Your task to perform on an android device: turn off location history Image 0: 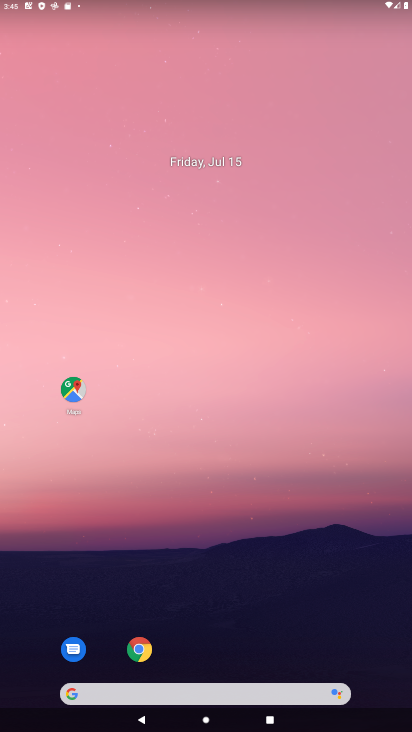
Step 0: drag from (305, 603) to (280, 6)
Your task to perform on an android device: turn off location history Image 1: 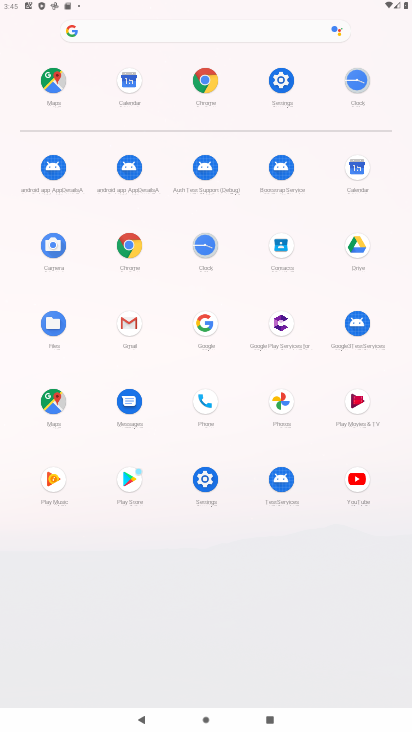
Step 1: click (284, 86)
Your task to perform on an android device: turn off location history Image 2: 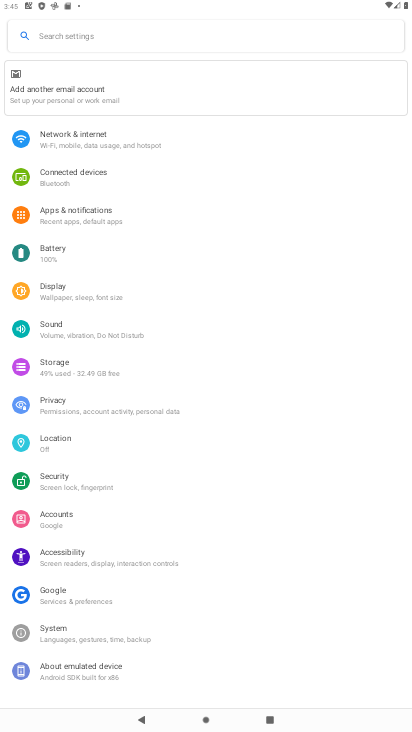
Step 2: click (57, 441)
Your task to perform on an android device: turn off location history Image 3: 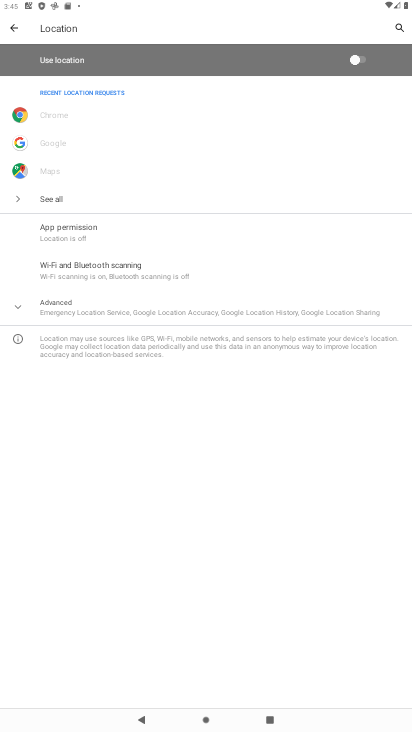
Step 3: click (113, 315)
Your task to perform on an android device: turn off location history Image 4: 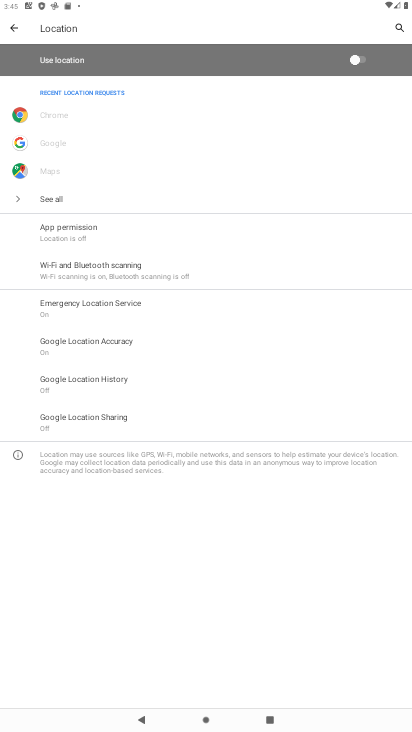
Step 4: click (110, 383)
Your task to perform on an android device: turn off location history Image 5: 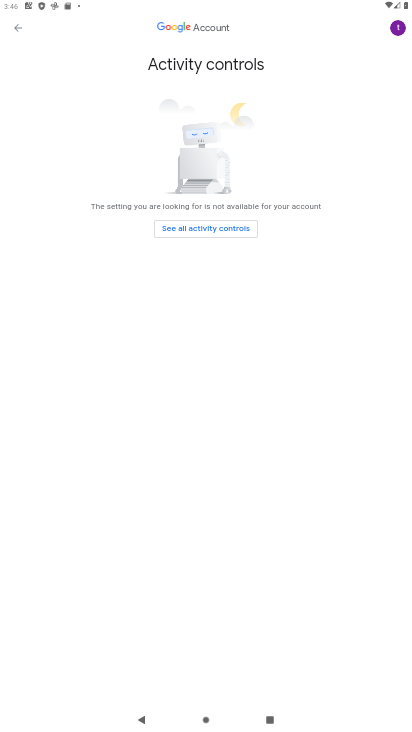
Step 5: task complete